Your task to perform on an android device: Open the Play Movies app and select the watchlist tab. Image 0: 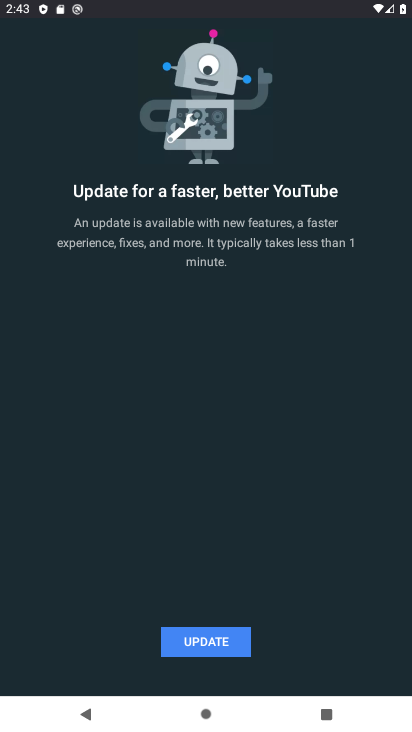
Step 0: press home button
Your task to perform on an android device: Open the Play Movies app and select the watchlist tab. Image 1: 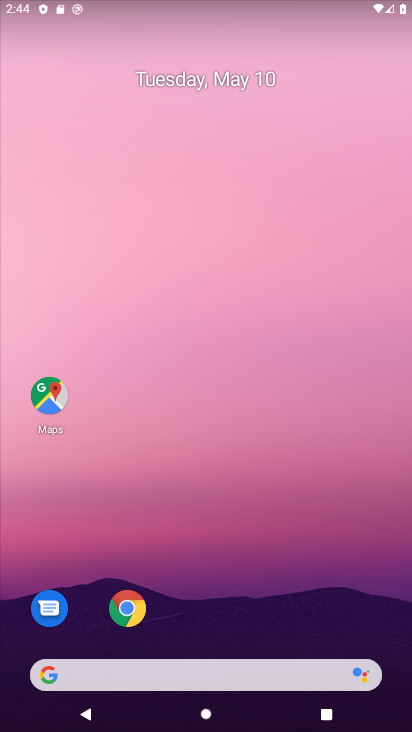
Step 1: drag from (380, 630) to (284, 119)
Your task to perform on an android device: Open the Play Movies app and select the watchlist tab. Image 2: 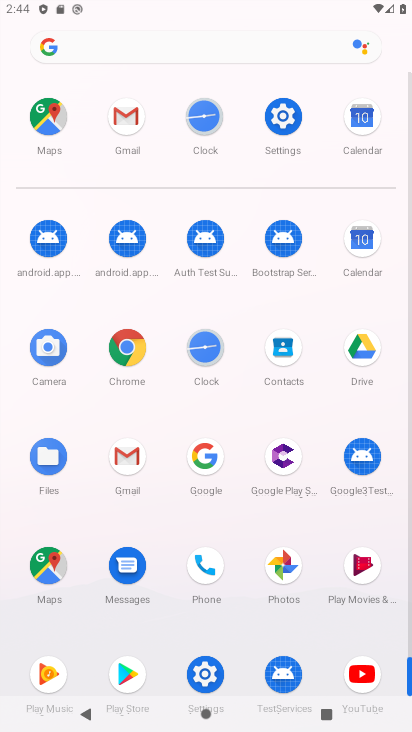
Step 2: click (362, 565)
Your task to perform on an android device: Open the Play Movies app and select the watchlist tab. Image 3: 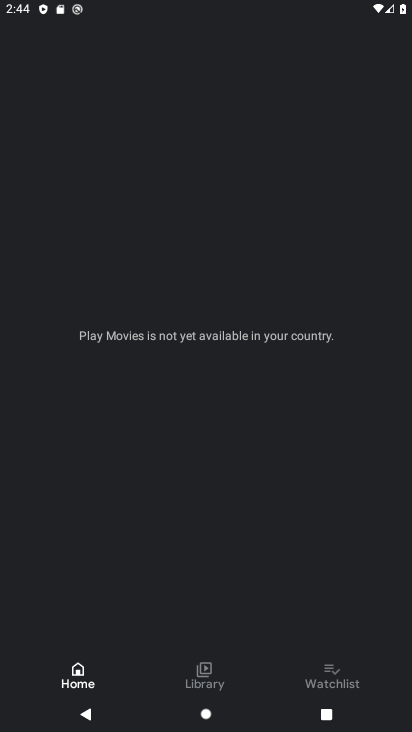
Step 3: click (330, 675)
Your task to perform on an android device: Open the Play Movies app and select the watchlist tab. Image 4: 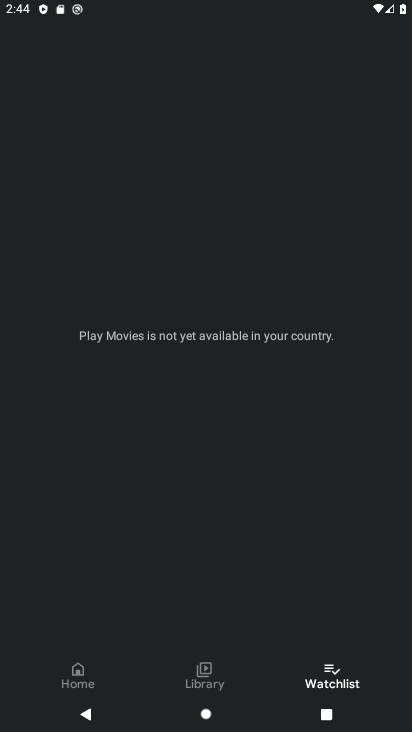
Step 4: task complete